Your task to perform on an android device: find photos in the google photos app Image 0: 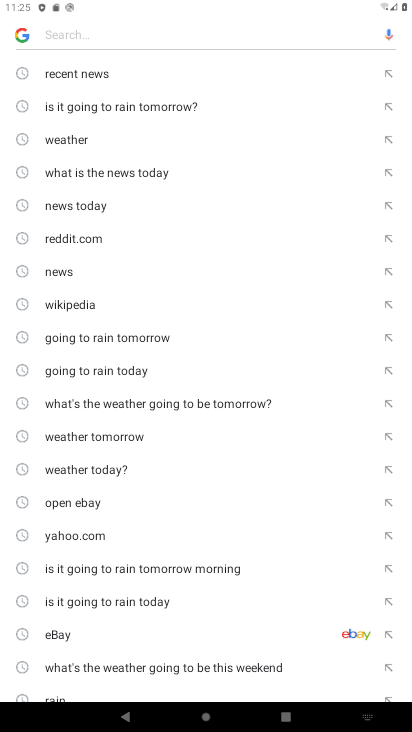
Step 0: press home button
Your task to perform on an android device: find photos in the google photos app Image 1: 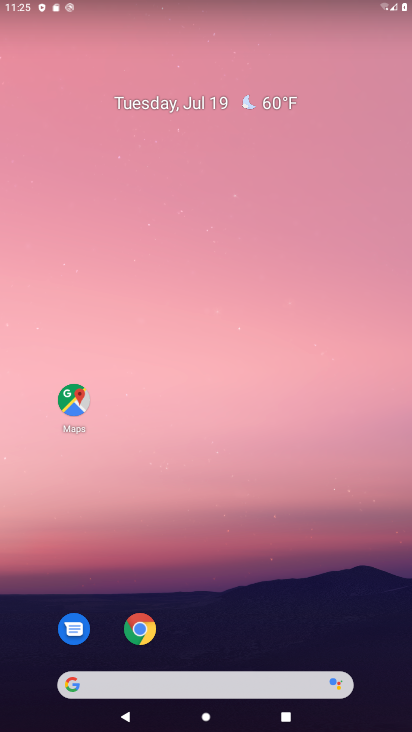
Step 1: drag from (246, 636) to (246, 245)
Your task to perform on an android device: find photos in the google photos app Image 2: 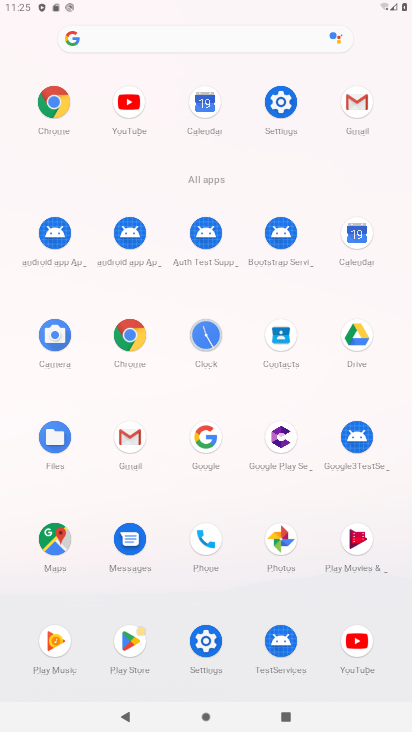
Step 2: click (272, 535)
Your task to perform on an android device: find photos in the google photos app Image 3: 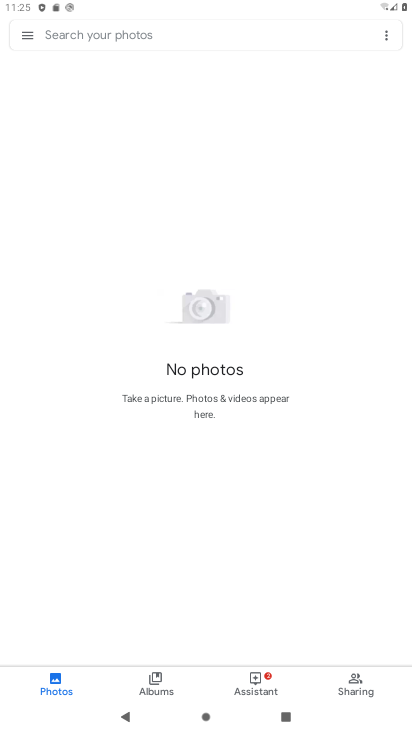
Step 3: task complete